Your task to perform on an android device: Google the capital of Mexico Image 0: 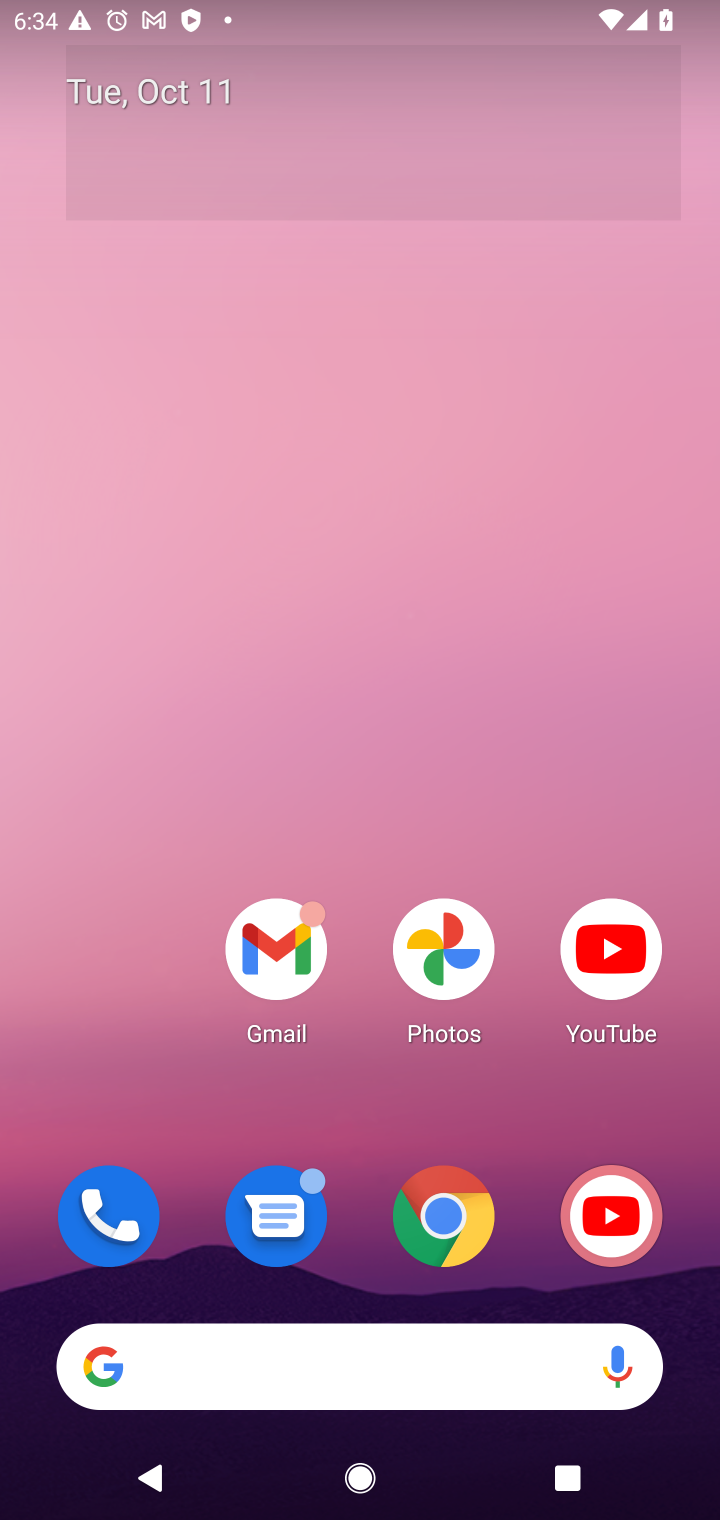
Step 0: click (462, 1232)
Your task to perform on an android device: Google the capital of Mexico Image 1: 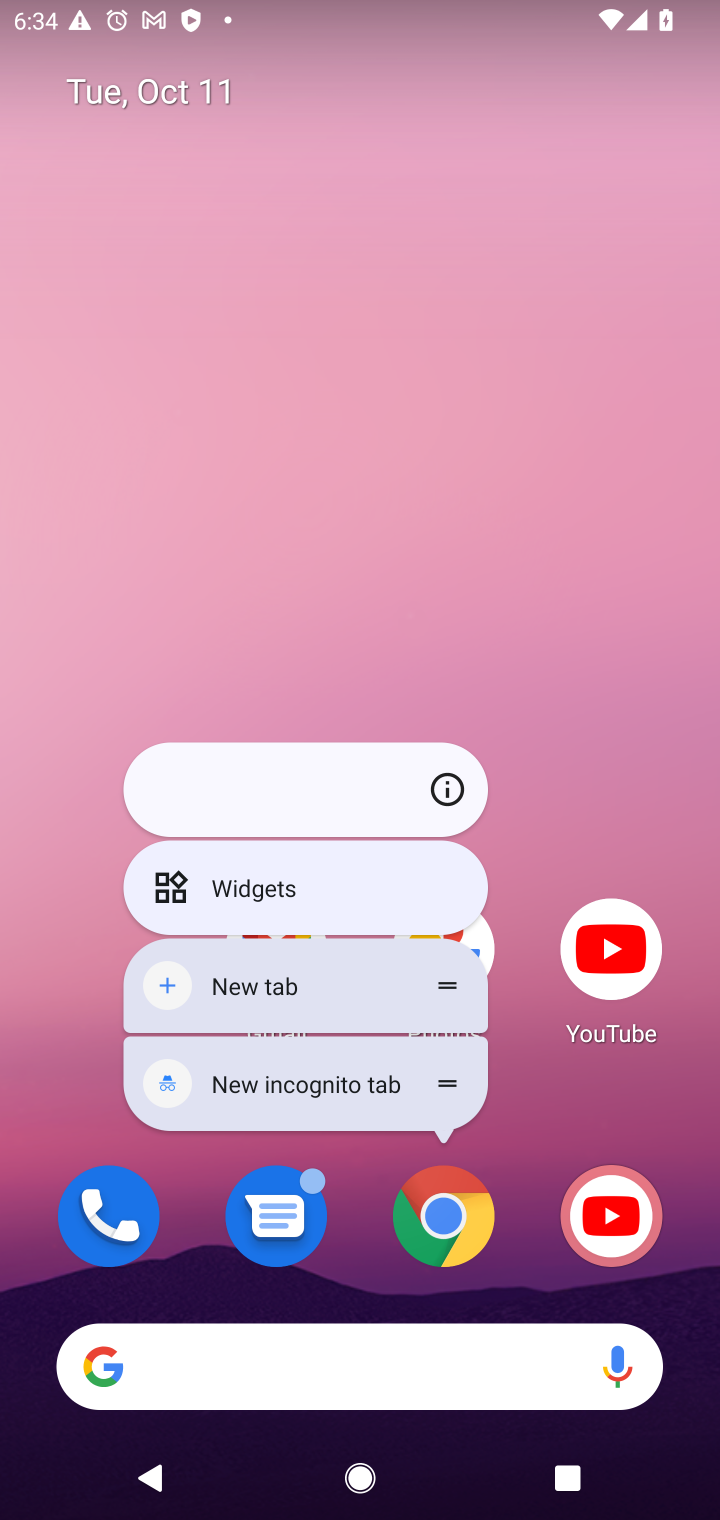
Step 1: click (472, 1206)
Your task to perform on an android device: Google the capital of Mexico Image 2: 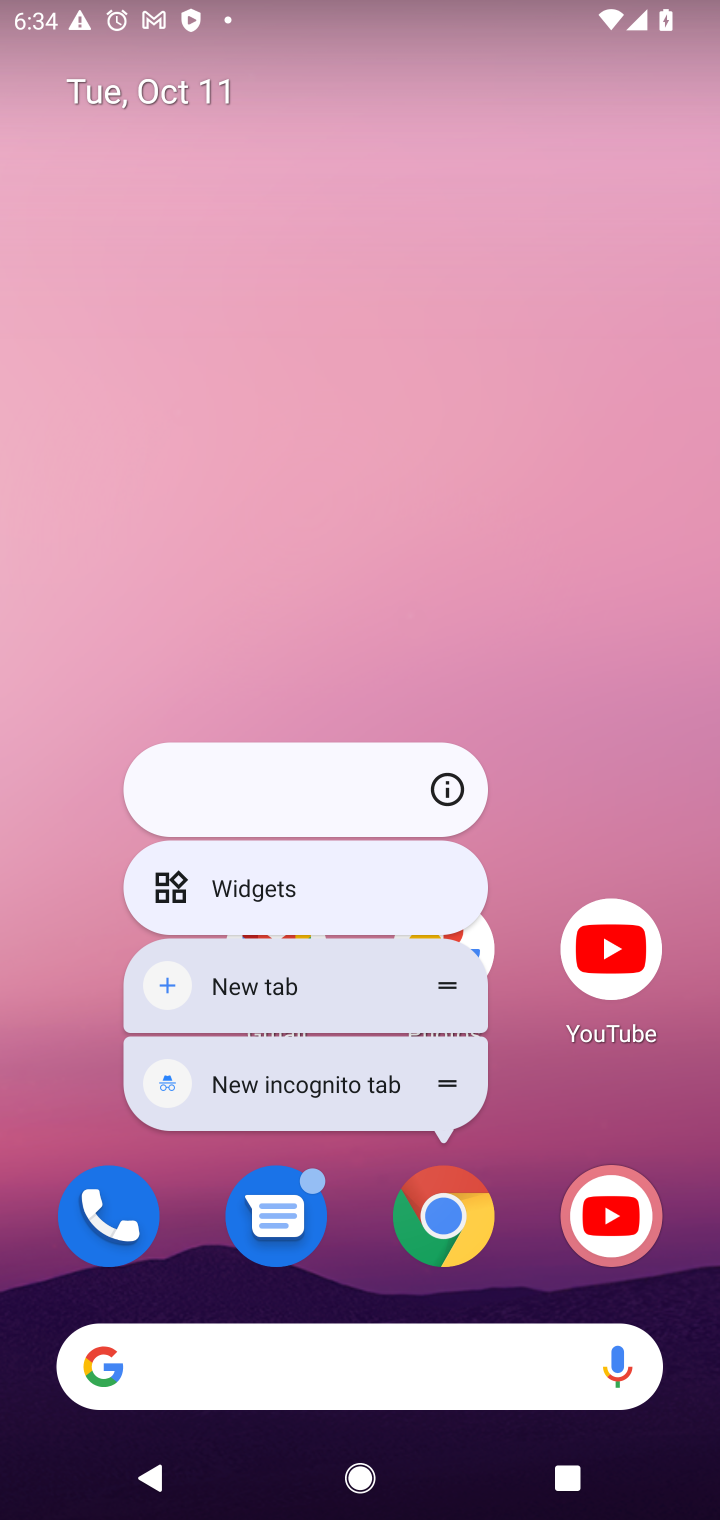
Step 2: click (472, 1206)
Your task to perform on an android device: Google the capital of Mexico Image 3: 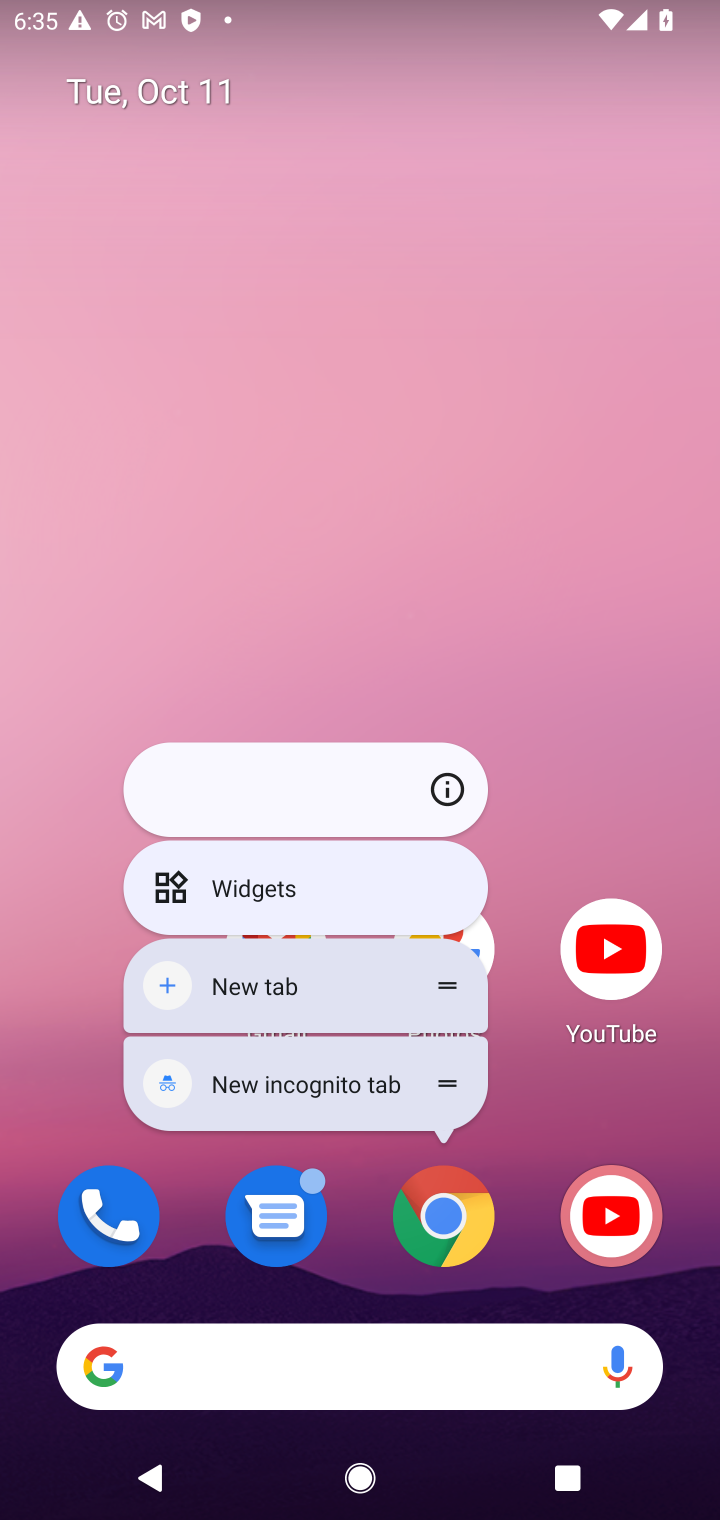
Step 3: click (442, 1197)
Your task to perform on an android device: Google the capital of Mexico Image 4: 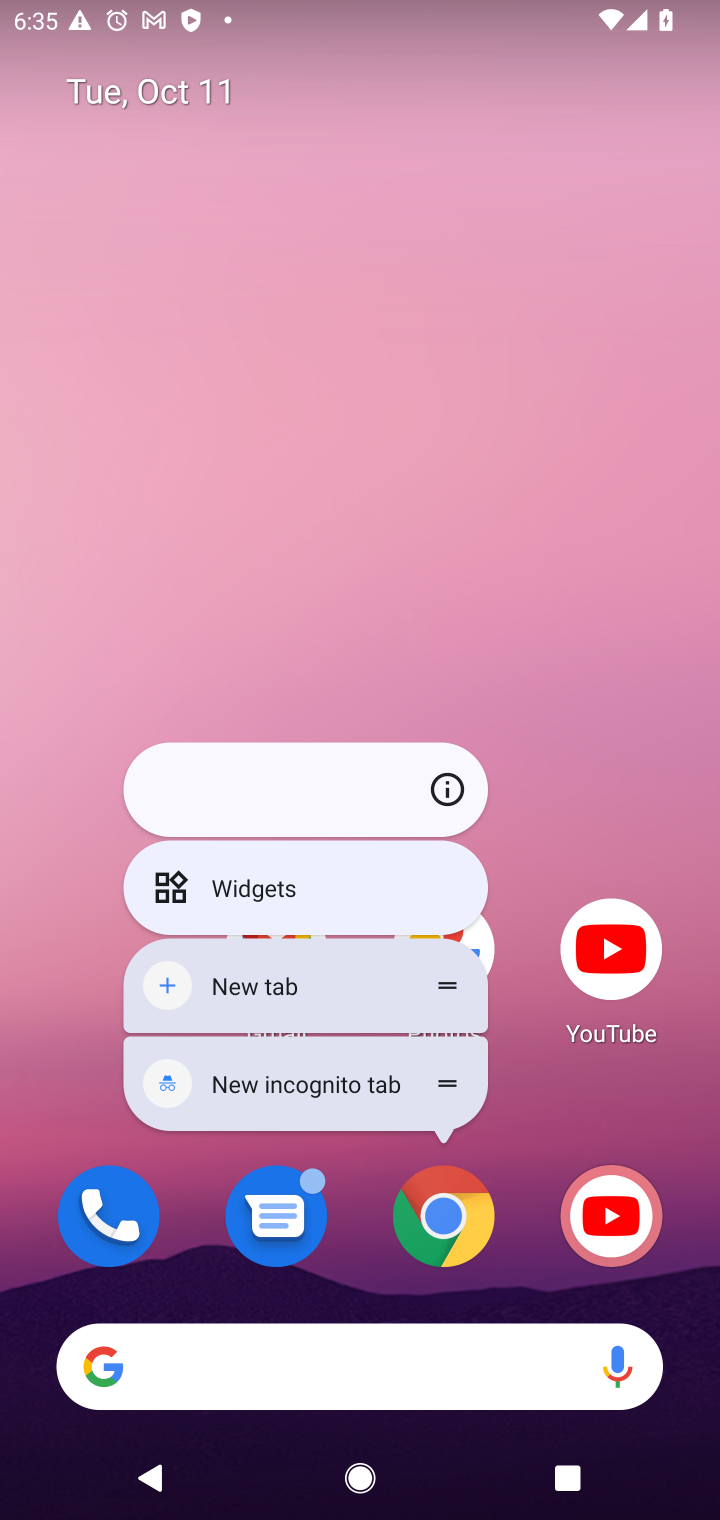
Step 4: click (467, 1224)
Your task to perform on an android device: Google the capital of Mexico Image 5: 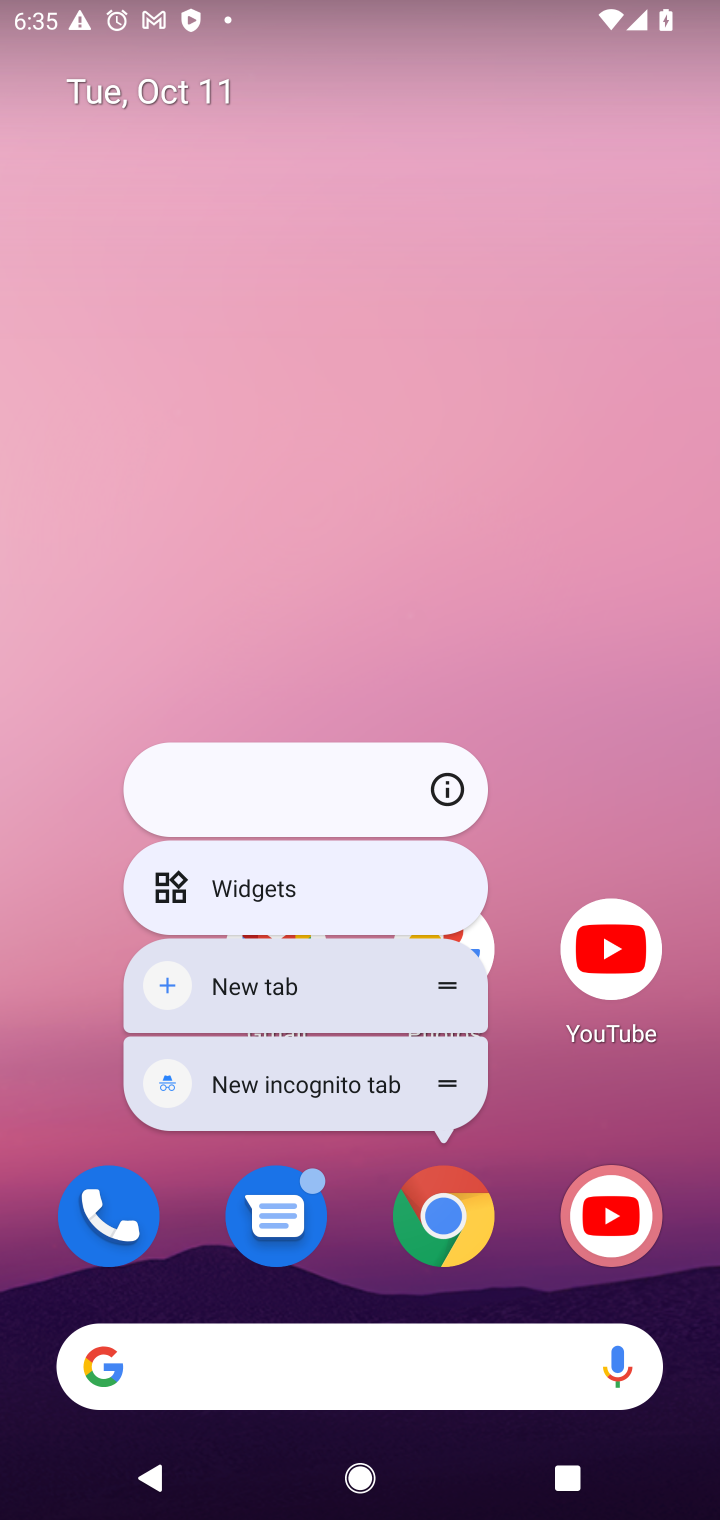
Step 5: click (467, 1224)
Your task to perform on an android device: Google the capital of Mexico Image 6: 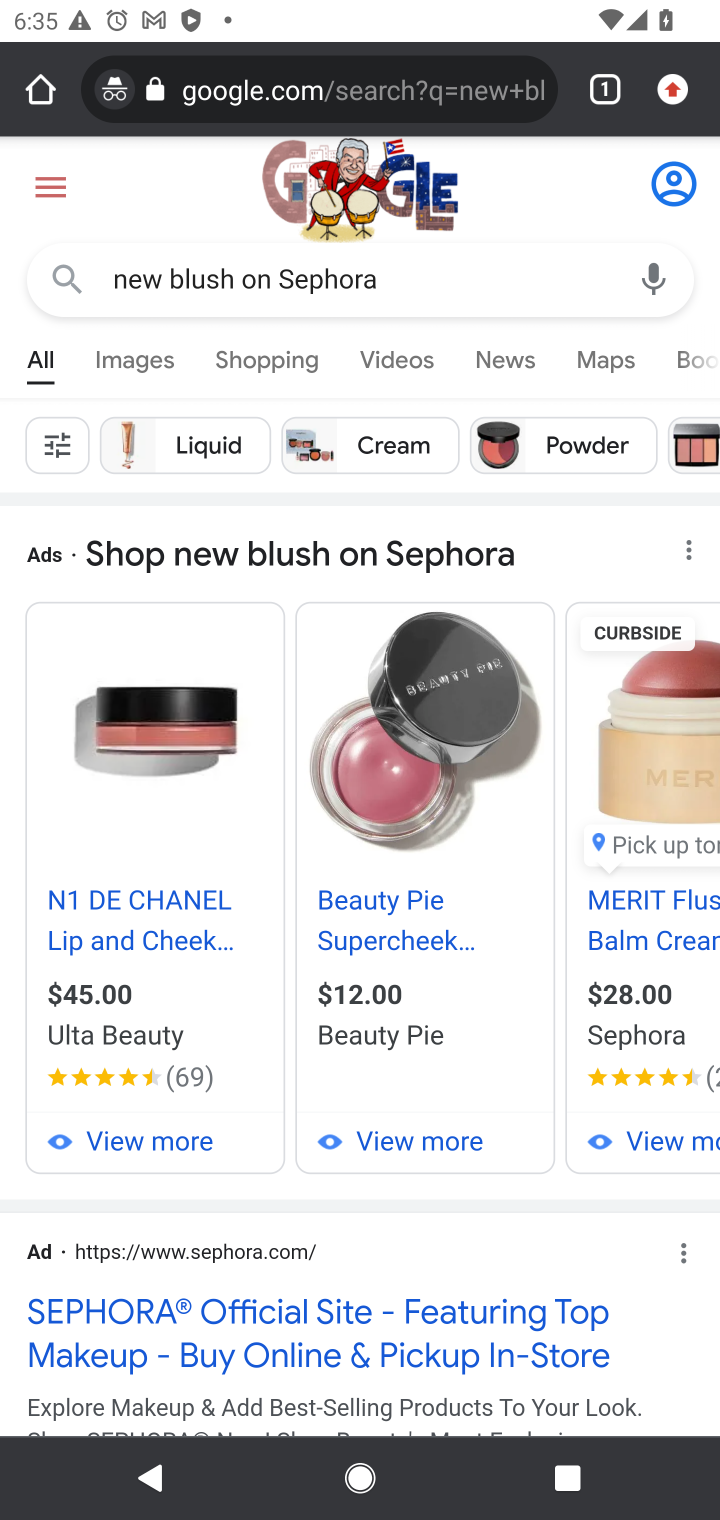
Step 6: click (481, 273)
Your task to perform on an android device: Google the capital of Mexico Image 7: 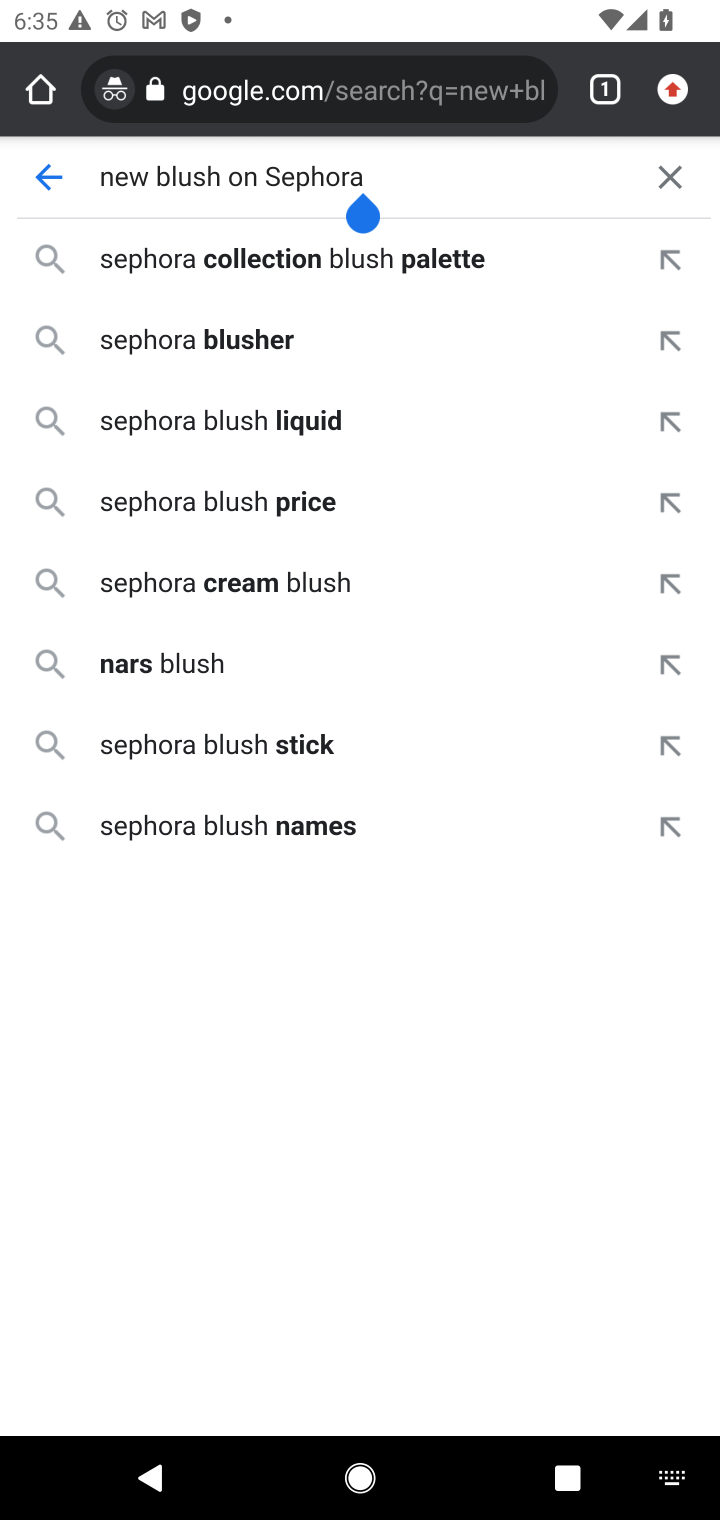
Step 7: click (654, 194)
Your task to perform on an android device: Google the capital of Mexico Image 8: 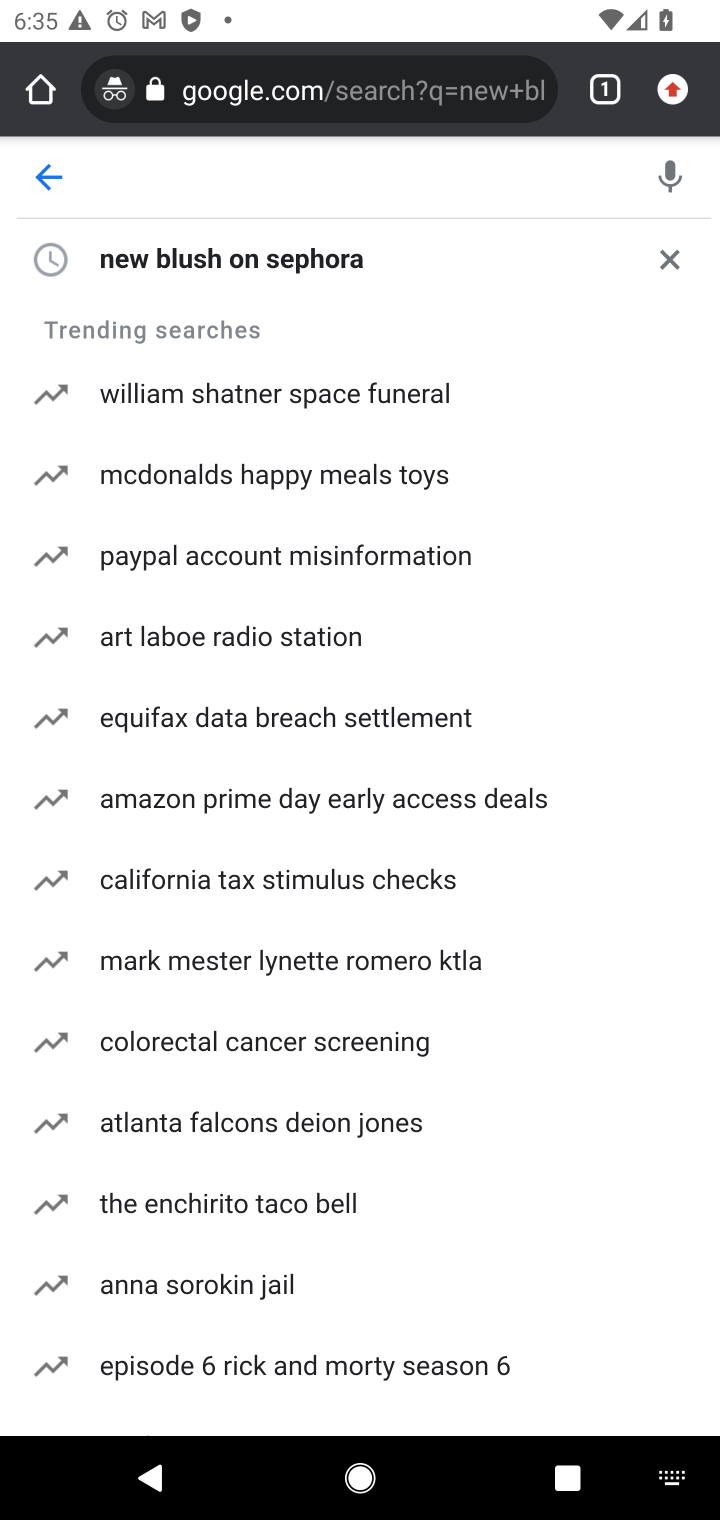
Step 8: type "capital of mexico"
Your task to perform on an android device: Google the capital of Mexico Image 9: 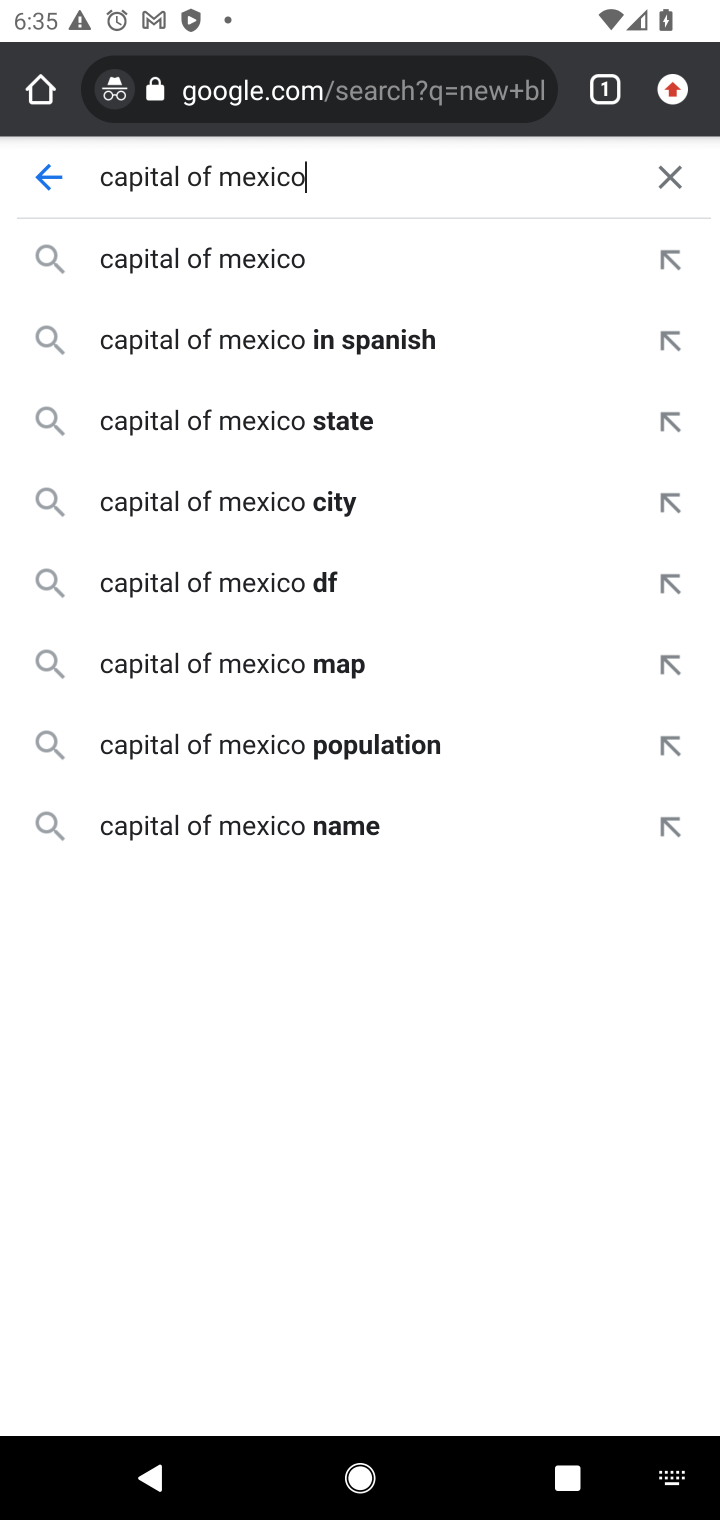
Step 9: press enter
Your task to perform on an android device: Google the capital of Mexico Image 10: 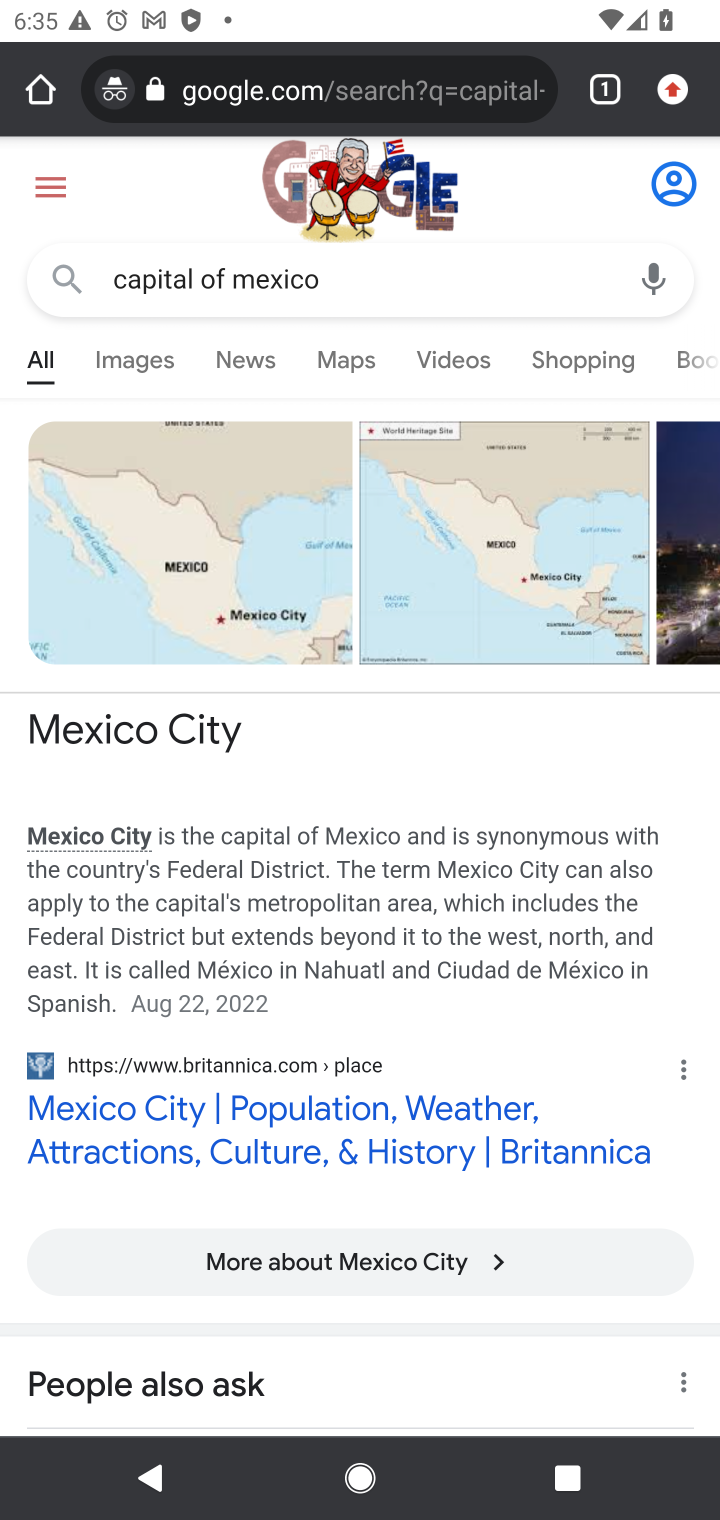
Step 10: task complete